Your task to perform on an android device: check the backup settings in the google photos Image 0: 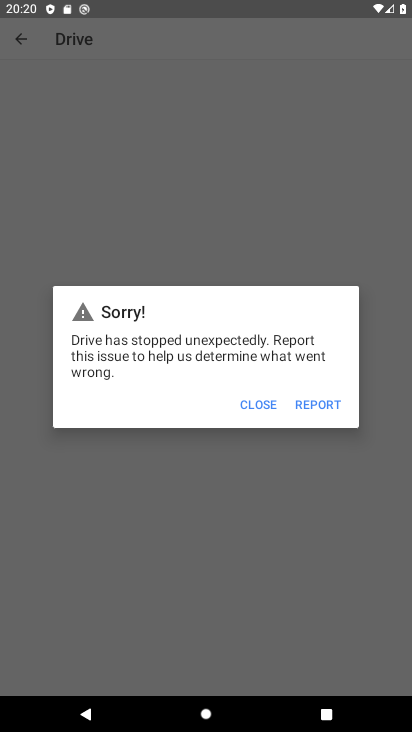
Step 0: press home button
Your task to perform on an android device: check the backup settings in the google photos Image 1: 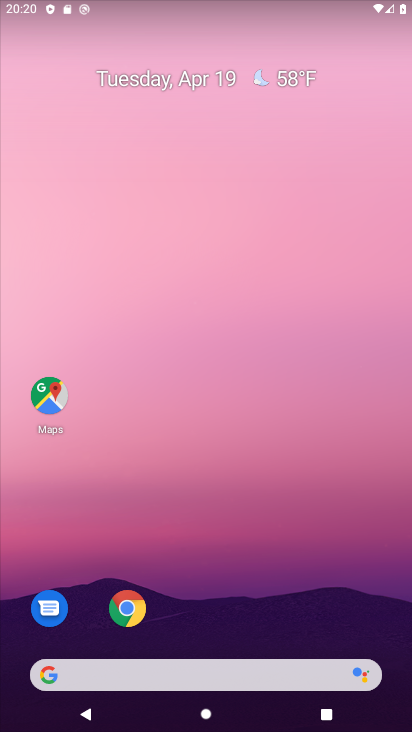
Step 1: drag from (207, 624) to (336, 100)
Your task to perform on an android device: check the backup settings in the google photos Image 2: 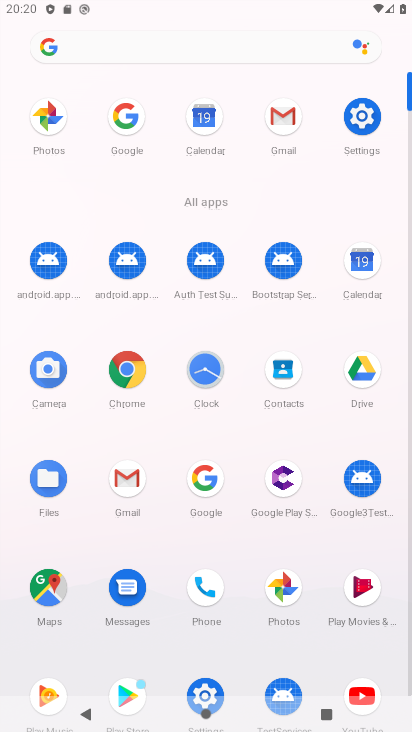
Step 2: click (46, 115)
Your task to perform on an android device: check the backup settings in the google photos Image 3: 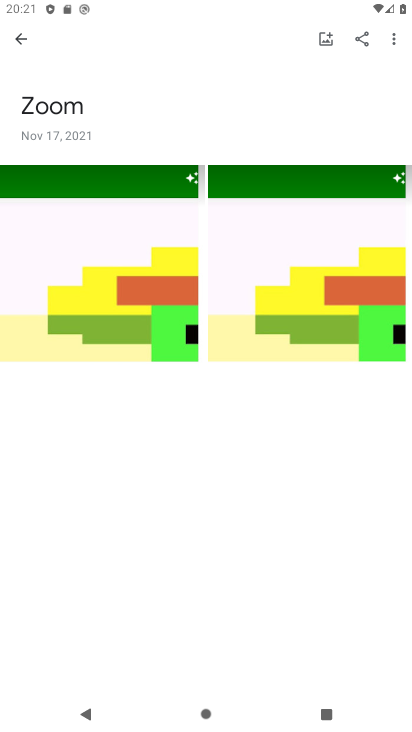
Step 3: press back button
Your task to perform on an android device: check the backup settings in the google photos Image 4: 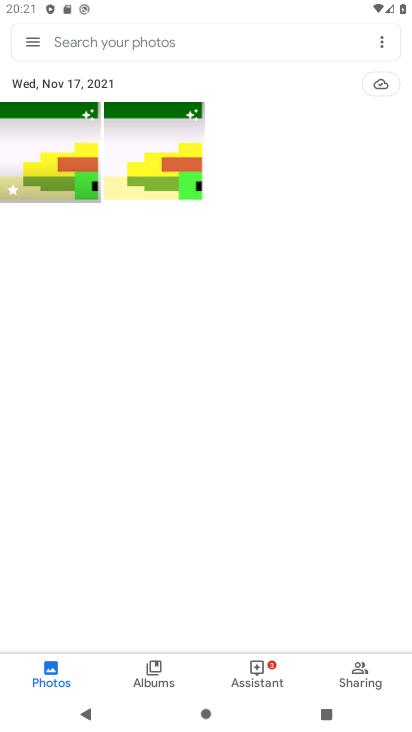
Step 4: click (34, 39)
Your task to perform on an android device: check the backup settings in the google photos Image 5: 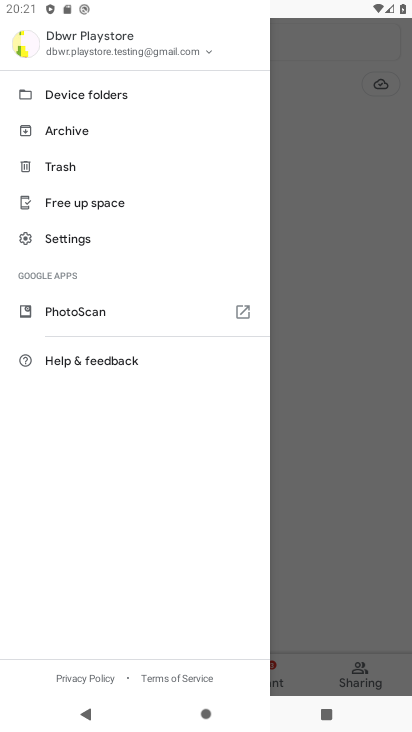
Step 5: click (83, 238)
Your task to perform on an android device: check the backup settings in the google photos Image 6: 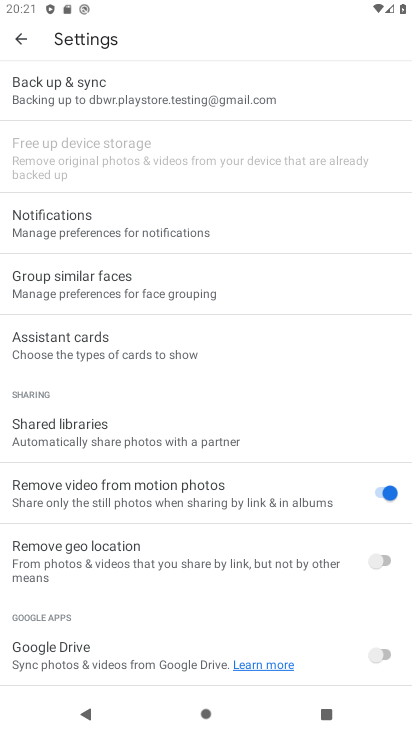
Step 6: click (117, 100)
Your task to perform on an android device: check the backup settings in the google photos Image 7: 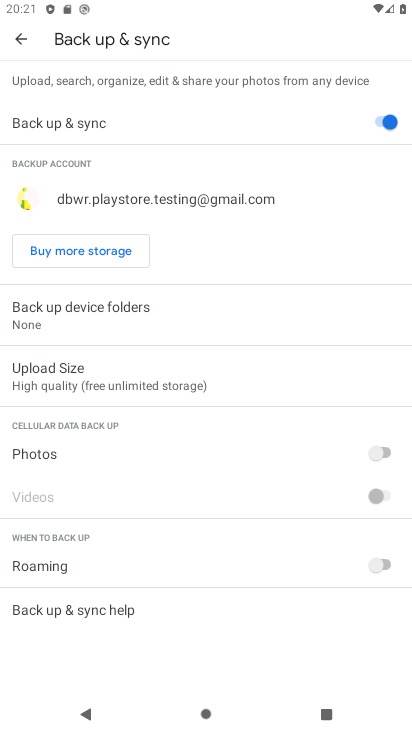
Step 7: task complete